Your task to perform on an android device: Open Google Chrome and click the shortcut for Amazon.com Image 0: 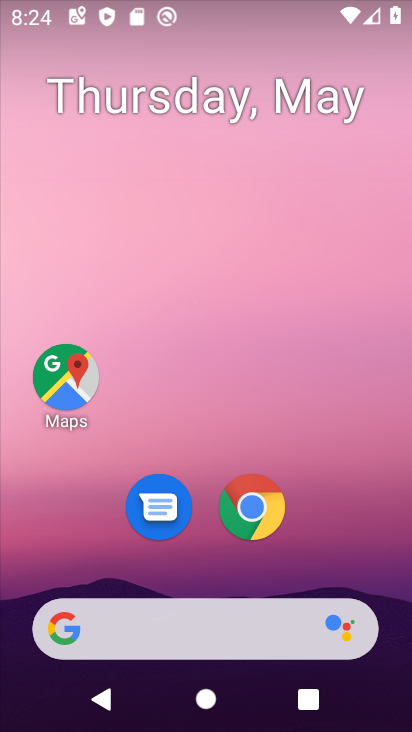
Step 0: drag from (376, 539) to (296, 101)
Your task to perform on an android device: Open Google Chrome and click the shortcut for Amazon.com Image 1: 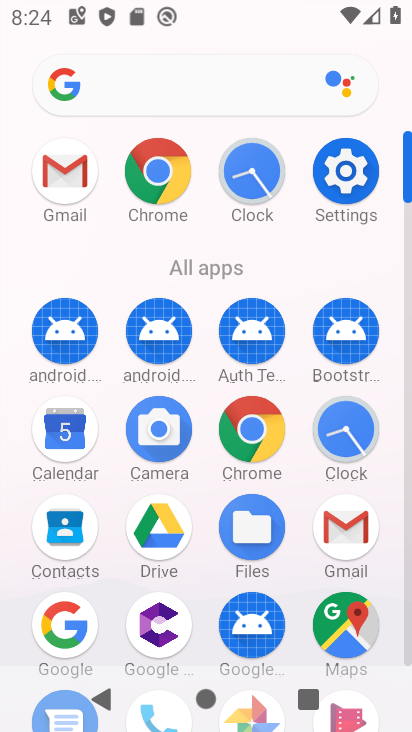
Step 1: click (263, 426)
Your task to perform on an android device: Open Google Chrome and click the shortcut for Amazon.com Image 2: 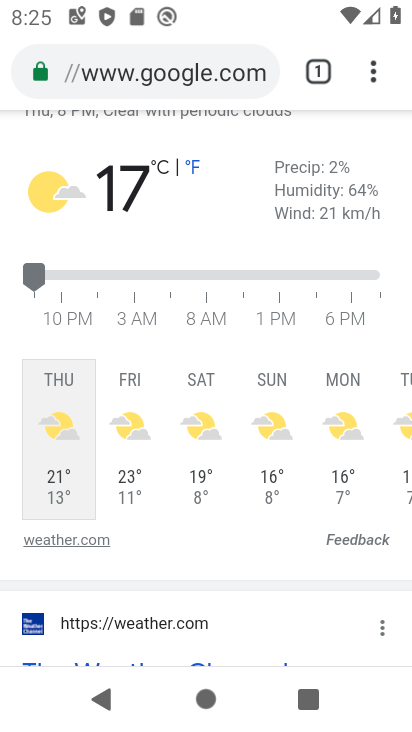
Step 2: click (317, 77)
Your task to perform on an android device: Open Google Chrome and click the shortcut for Amazon.com Image 3: 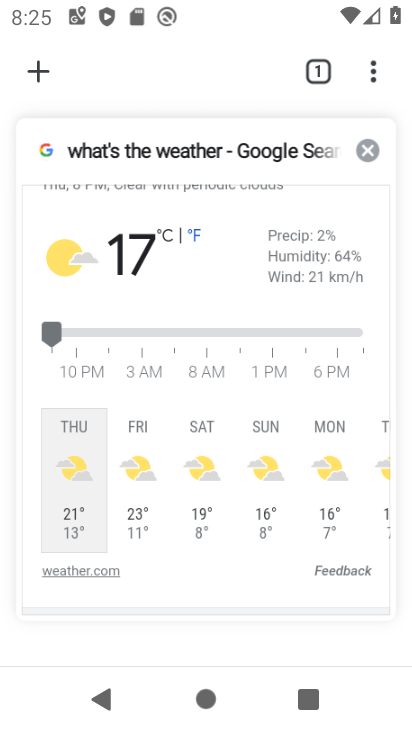
Step 3: click (26, 71)
Your task to perform on an android device: Open Google Chrome and click the shortcut for Amazon.com Image 4: 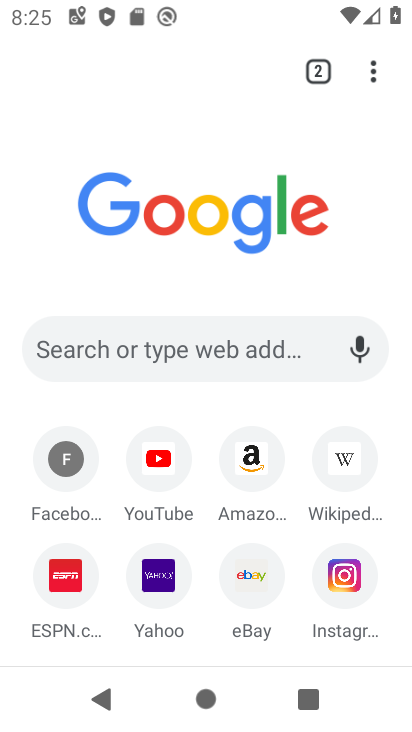
Step 4: click (247, 482)
Your task to perform on an android device: Open Google Chrome and click the shortcut for Amazon.com Image 5: 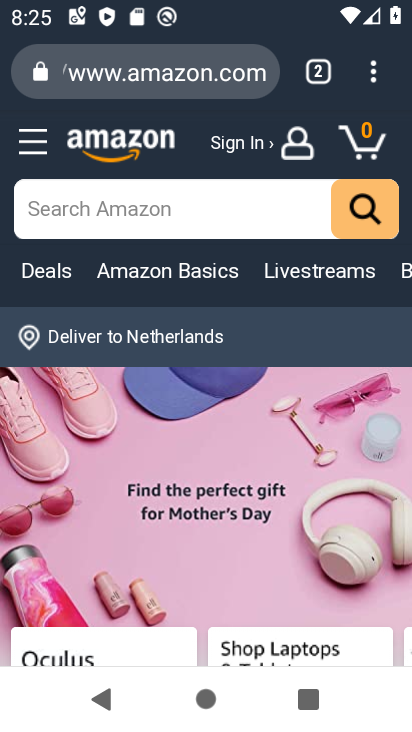
Step 5: task complete